Your task to perform on an android device: add a contact in the contacts app Image 0: 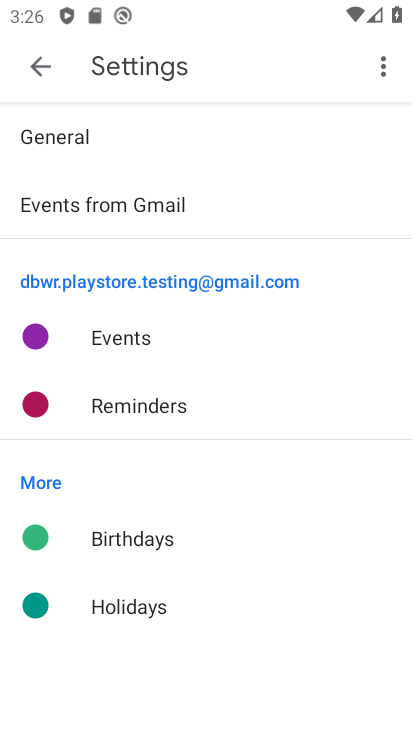
Step 0: press home button
Your task to perform on an android device: add a contact in the contacts app Image 1: 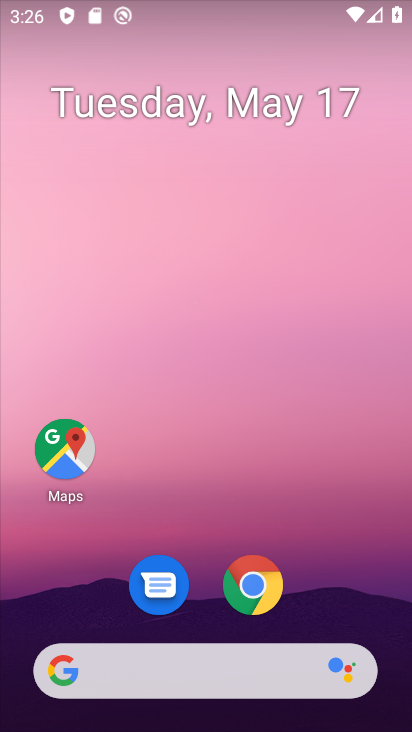
Step 1: drag from (208, 520) to (205, 84)
Your task to perform on an android device: add a contact in the contacts app Image 2: 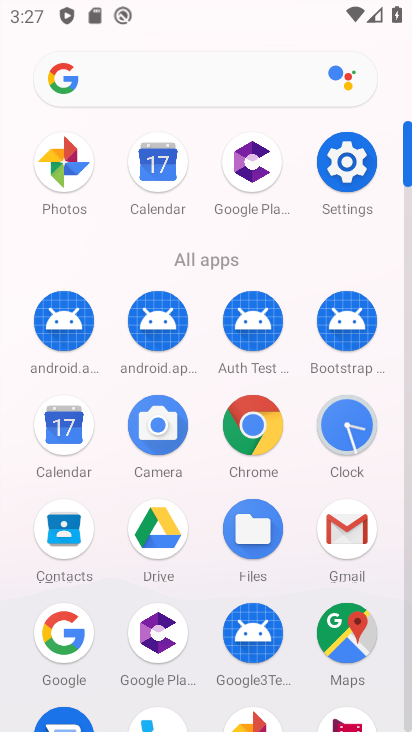
Step 2: click (74, 527)
Your task to perform on an android device: add a contact in the contacts app Image 3: 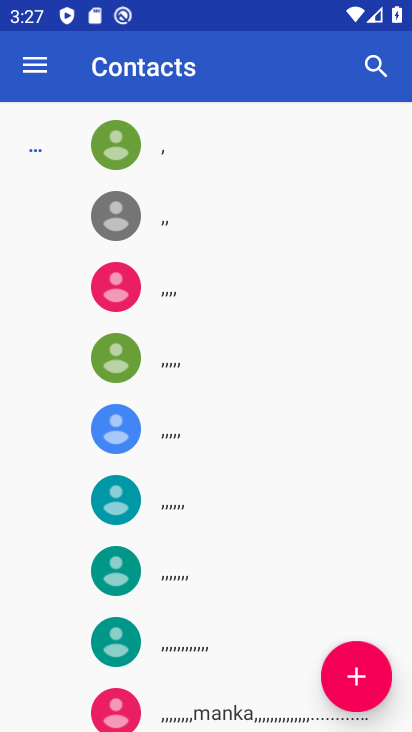
Step 3: click (353, 676)
Your task to perform on an android device: add a contact in the contacts app Image 4: 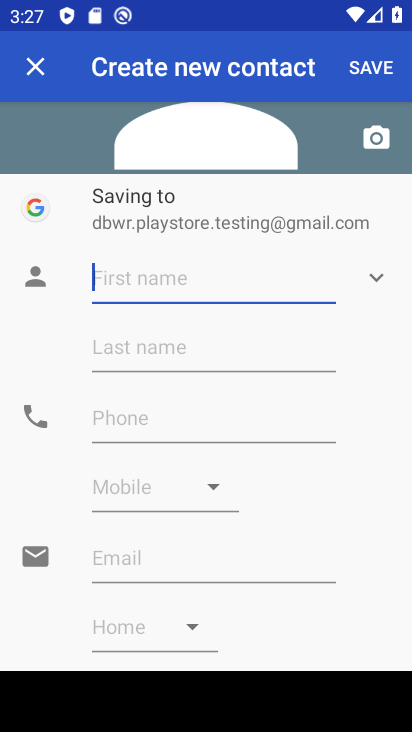
Step 4: type "Tejomahalaya Agra India"
Your task to perform on an android device: add a contact in the contacts app Image 5: 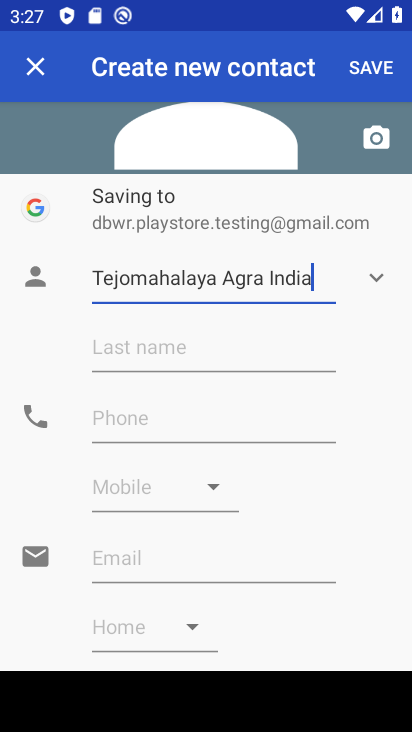
Step 5: click (267, 352)
Your task to perform on an android device: add a contact in the contacts app Image 6: 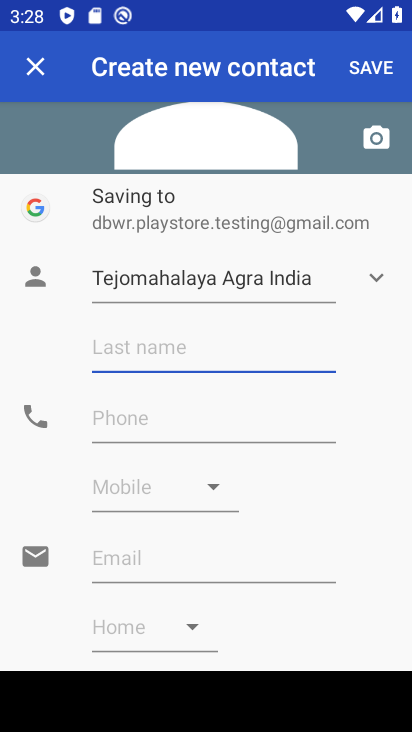
Step 6: click (210, 417)
Your task to perform on an android device: add a contact in the contacts app Image 7: 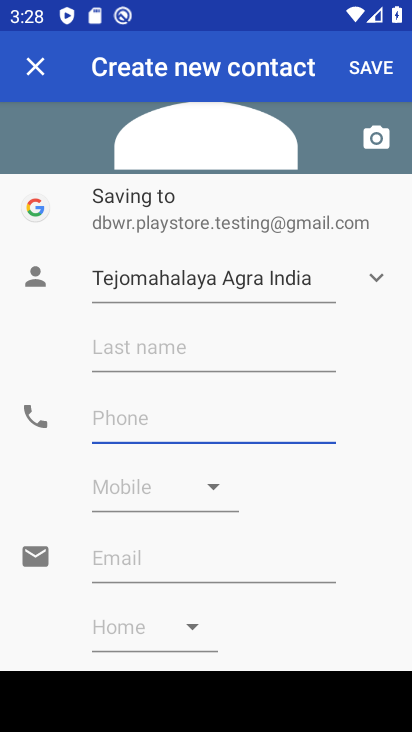
Step 7: type "9177755331100"
Your task to perform on an android device: add a contact in the contacts app Image 8: 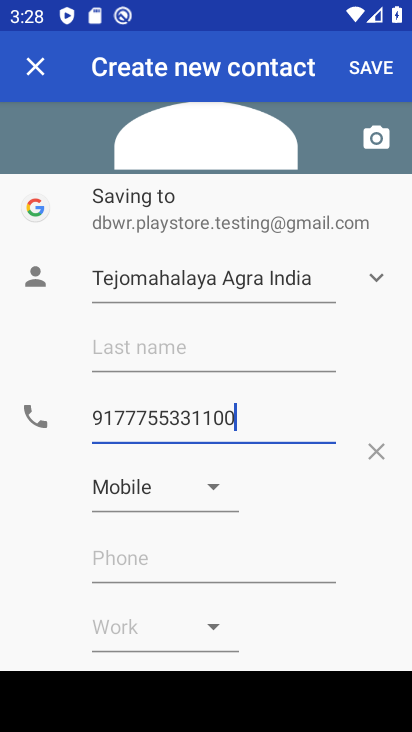
Step 8: click (372, 63)
Your task to perform on an android device: add a contact in the contacts app Image 9: 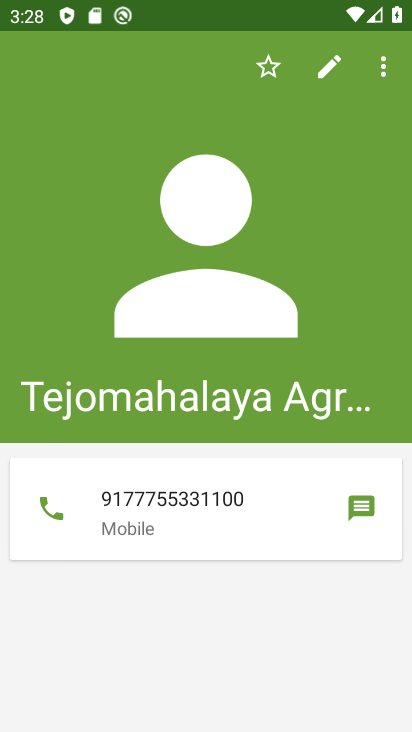
Step 9: task complete